Your task to perform on an android device: Clear the shopping cart on bestbuy. Add bose soundsport free to the cart on bestbuy Image 0: 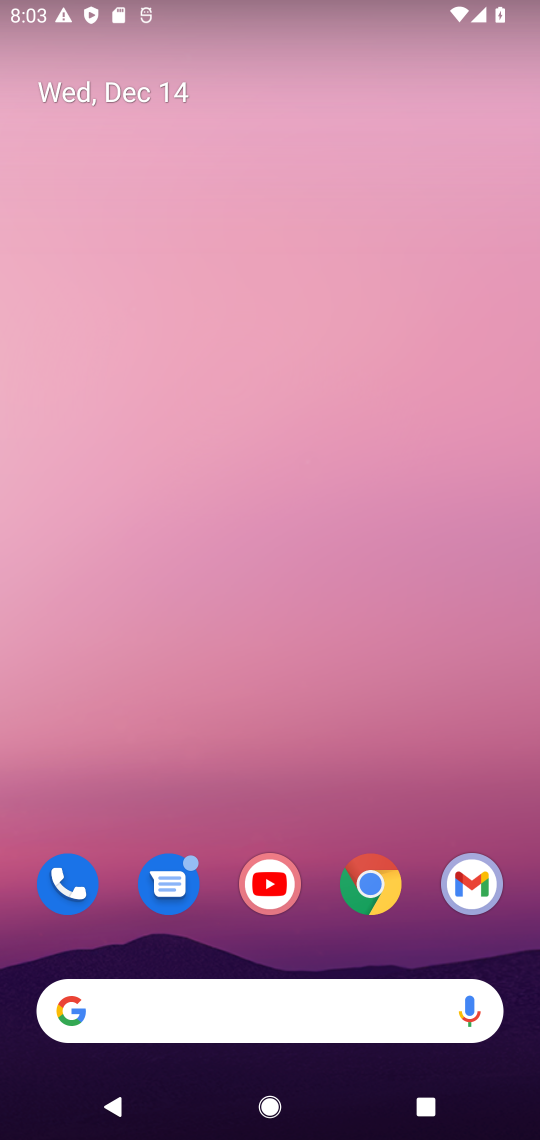
Step 0: click (379, 888)
Your task to perform on an android device: Clear the shopping cart on bestbuy. Add bose soundsport free to the cart on bestbuy Image 1: 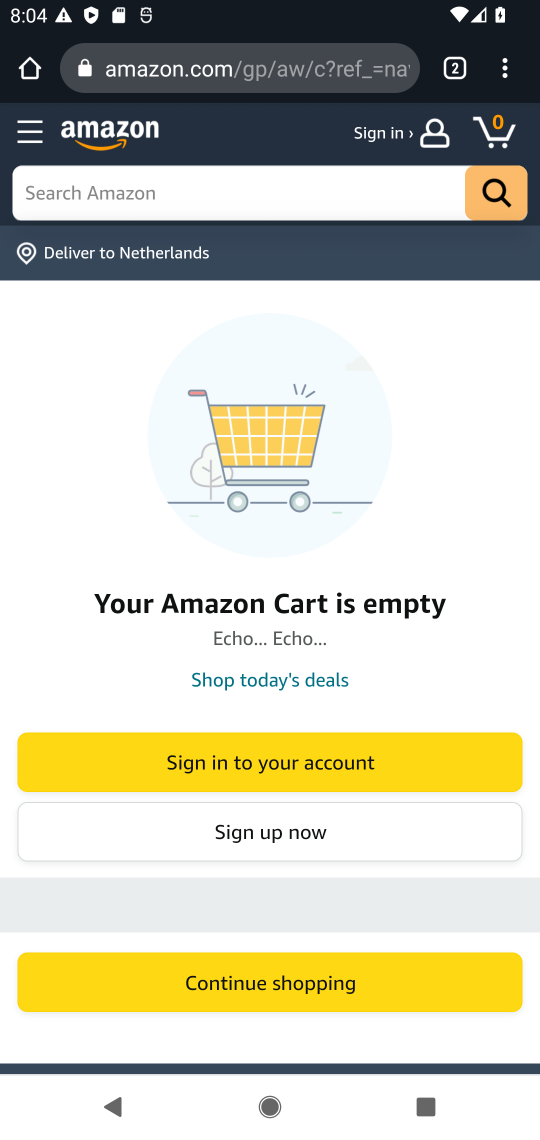
Step 1: click (466, 66)
Your task to perform on an android device: Clear the shopping cart on bestbuy. Add bose soundsport free to the cart on bestbuy Image 2: 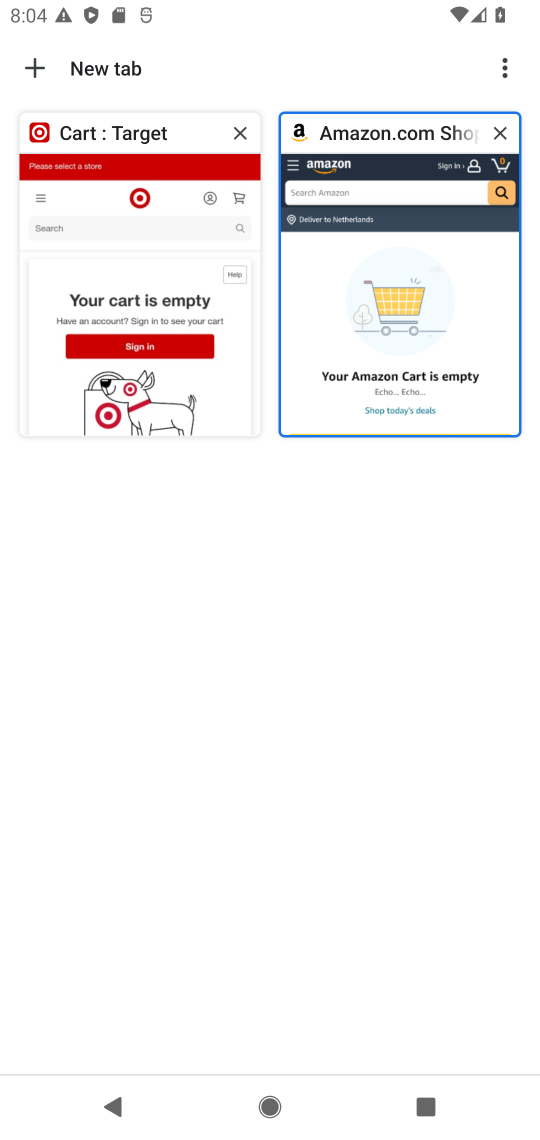
Step 2: click (35, 68)
Your task to perform on an android device: Clear the shopping cart on bestbuy. Add bose soundsport free to the cart on bestbuy Image 3: 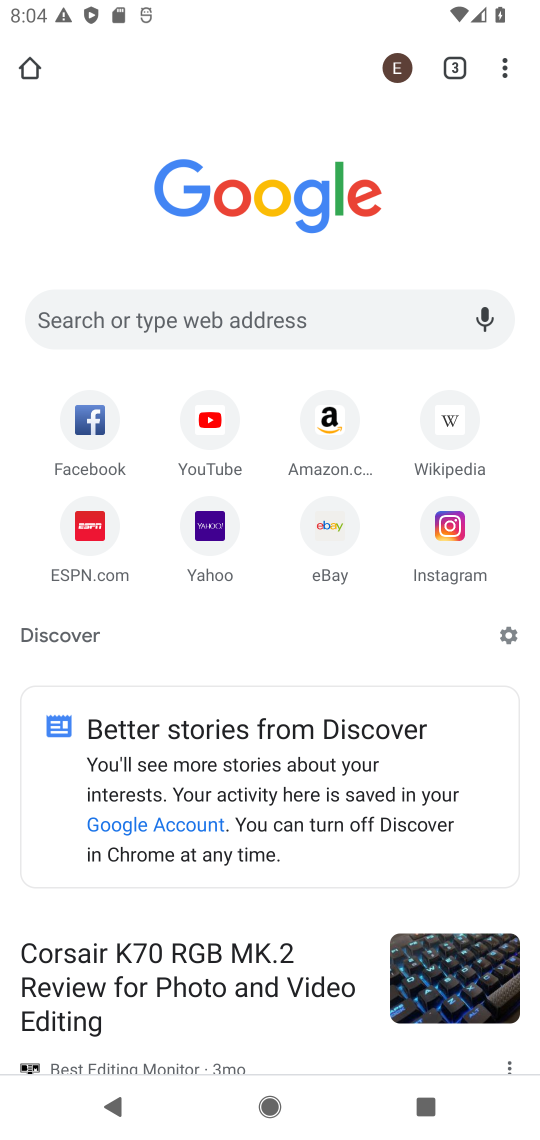
Step 3: click (187, 315)
Your task to perform on an android device: Clear the shopping cart on bestbuy. Add bose soundsport free to the cart on bestbuy Image 4: 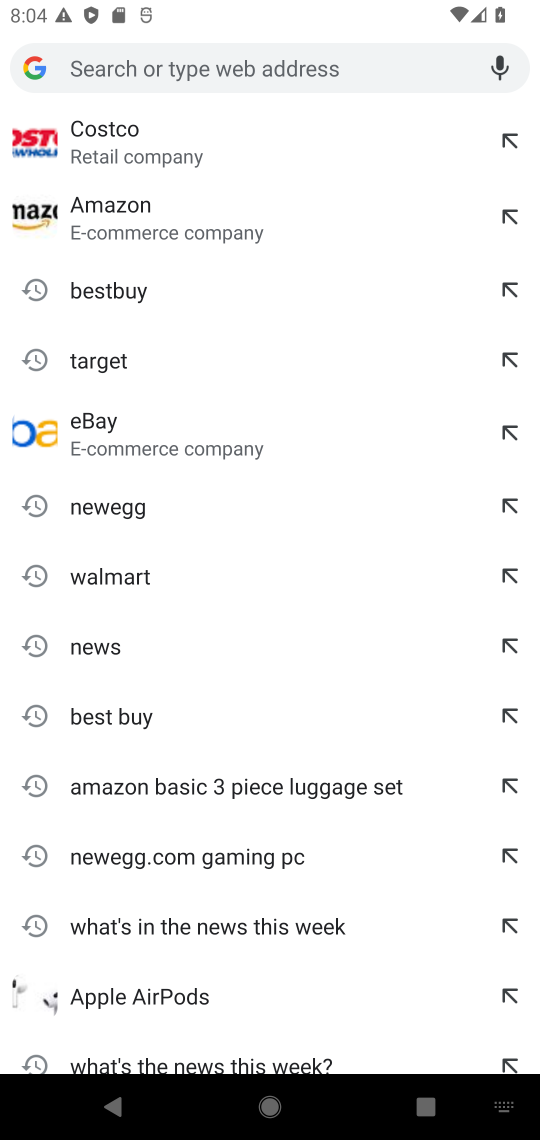
Step 4: click (106, 286)
Your task to perform on an android device: Clear the shopping cart on bestbuy. Add bose soundsport free to the cart on bestbuy Image 5: 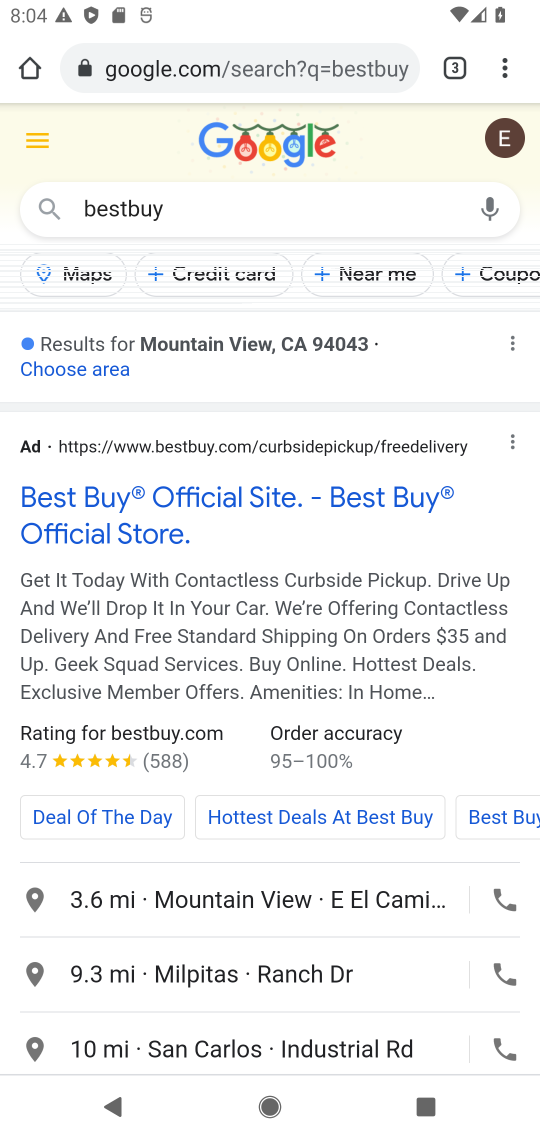
Step 5: click (155, 505)
Your task to perform on an android device: Clear the shopping cart on bestbuy. Add bose soundsport free to the cart on bestbuy Image 6: 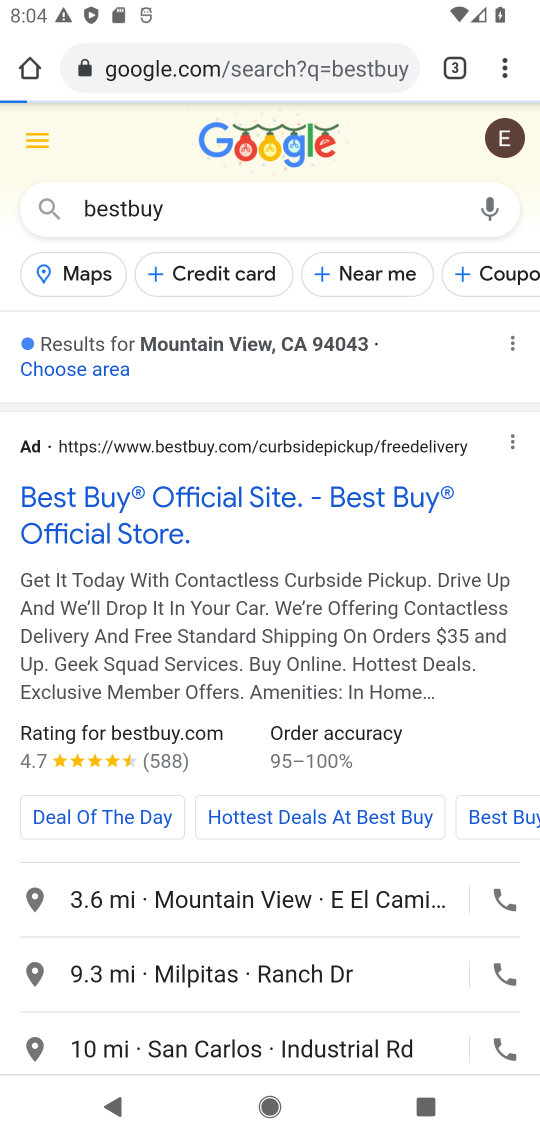
Step 6: click (155, 505)
Your task to perform on an android device: Clear the shopping cart on bestbuy. Add bose soundsport free to the cart on bestbuy Image 7: 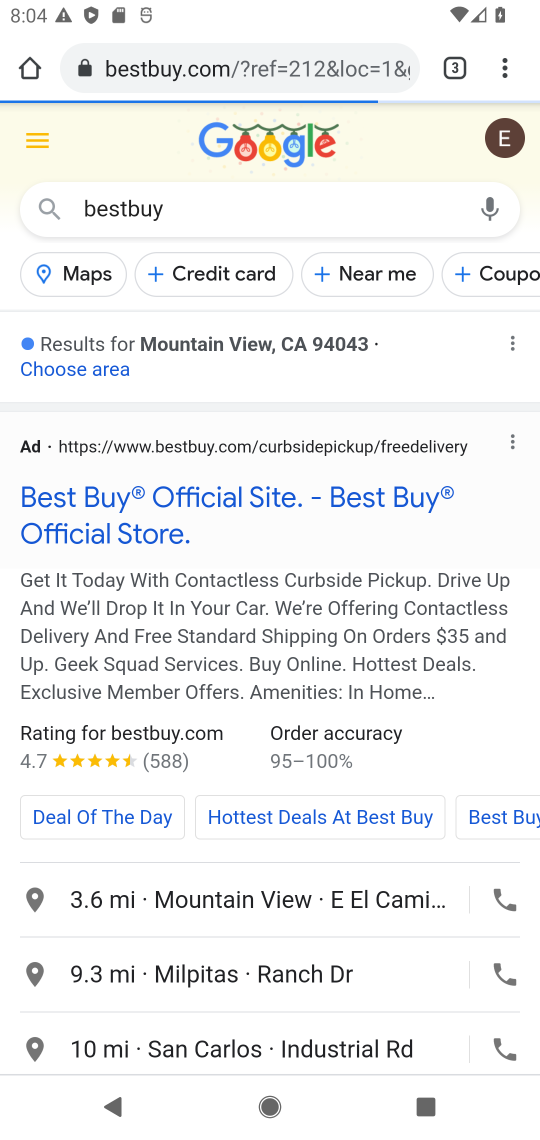
Step 7: click (82, 503)
Your task to perform on an android device: Clear the shopping cart on bestbuy. Add bose soundsport free to the cart on bestbuy Image 8: 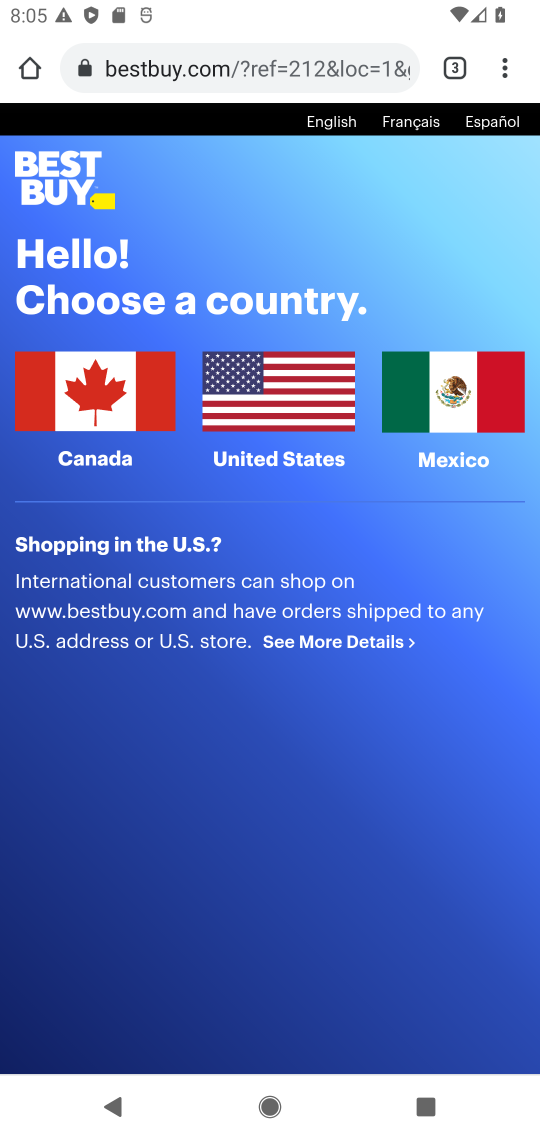
Step 8: click (329, 406)
Your task to perform on an android device: Clear the shopping cart on bestbuy. Add bose soundsport free to the cart on bestbuy Image 9: 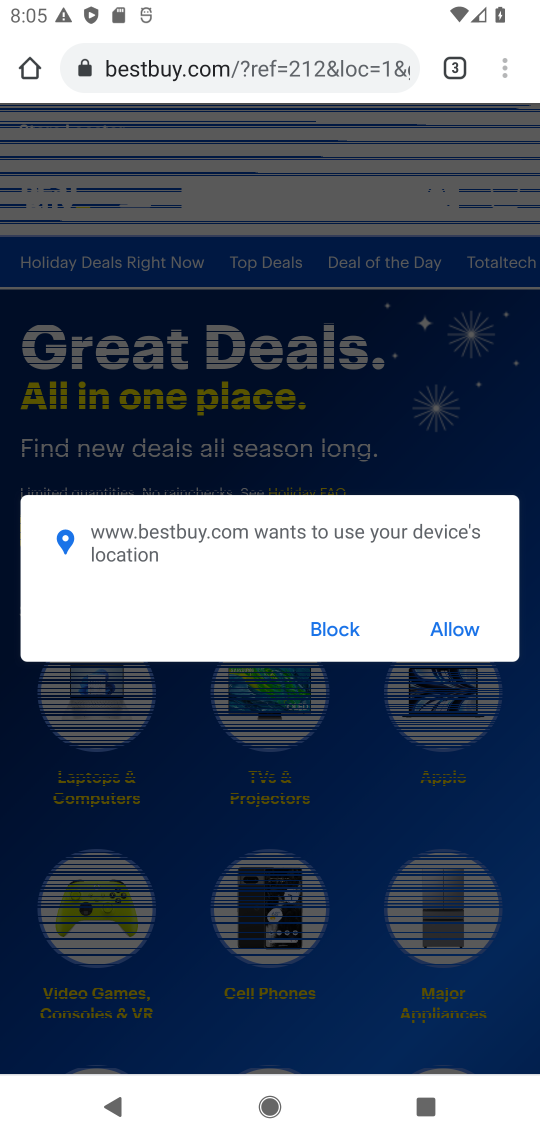
Step 9: click (325, 633)
Your task to perform on an android device: Clear the shopping cart on bestbuy. Add bose soundsport free to the cart on bestbuy Image 10: 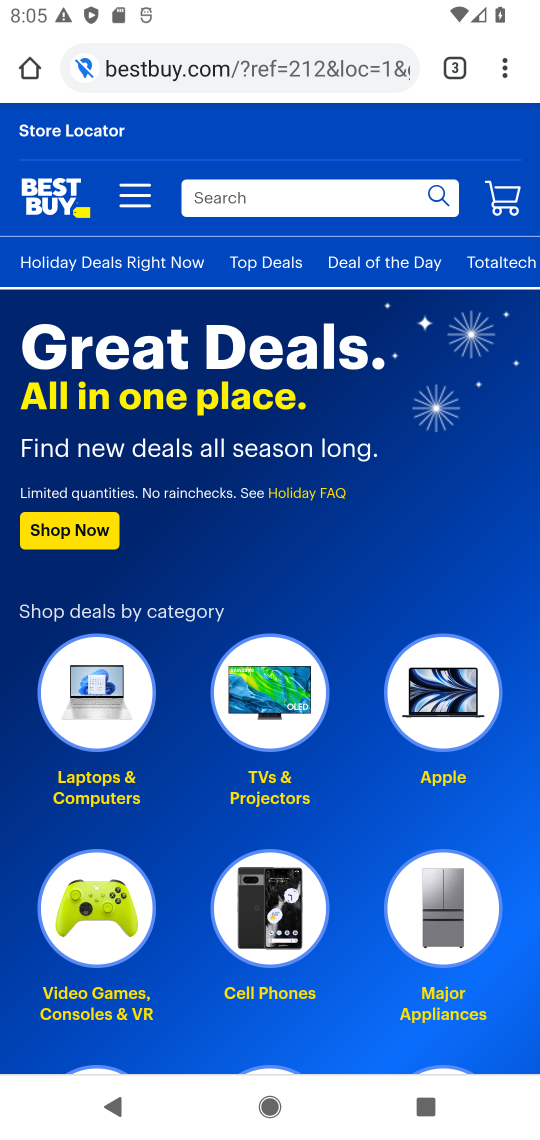
Step 10: click (254, 185)
Your task to perform on an android device: Clear the shopping cart on bestbuy. Add bose soundsport free to the cart on bestbuy Image 11: 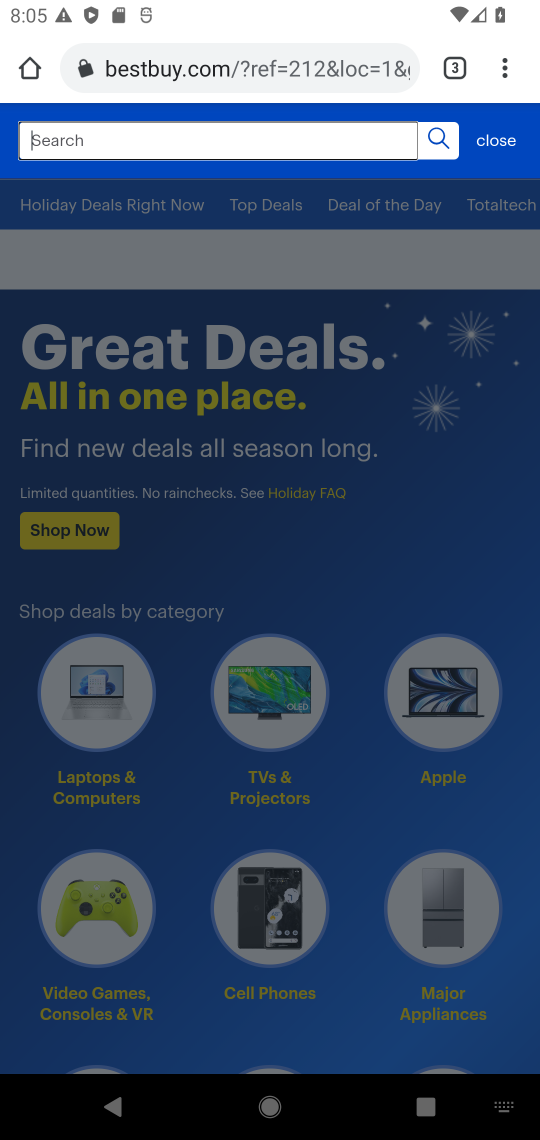
Step 11: type "bose soundsport free"
Your task to perform on an android device: Clear the shopping cart on bestbuy. Add bose soundsport free to the cart on bestbuy Image 12: 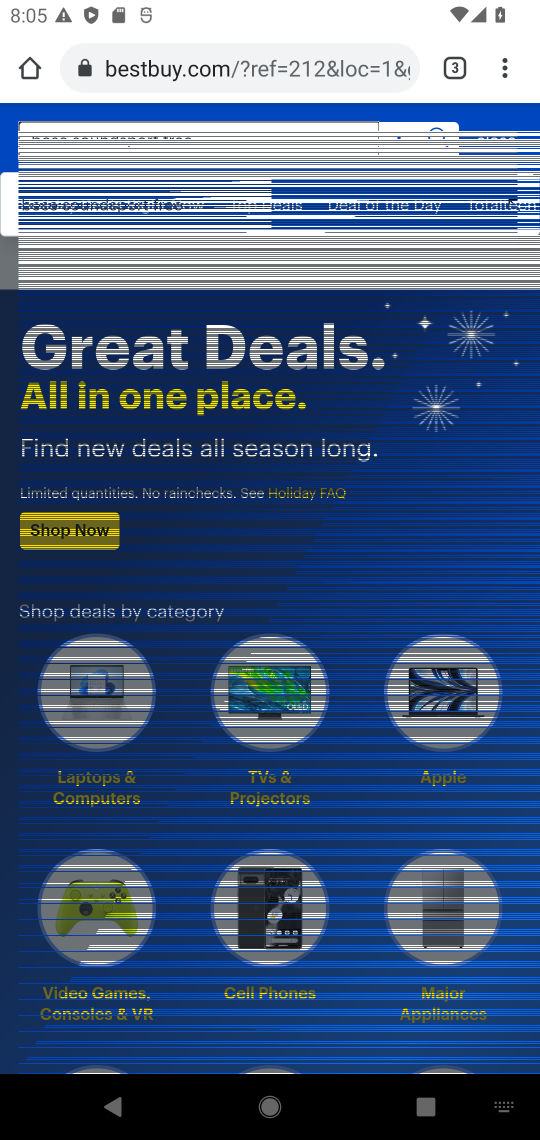
Step 12: click (153, 220)
Your task to perform on an android device: Clear the shopping cart on bestbuy. Add bose soundsport free to the cart on bestbuy Image 13: 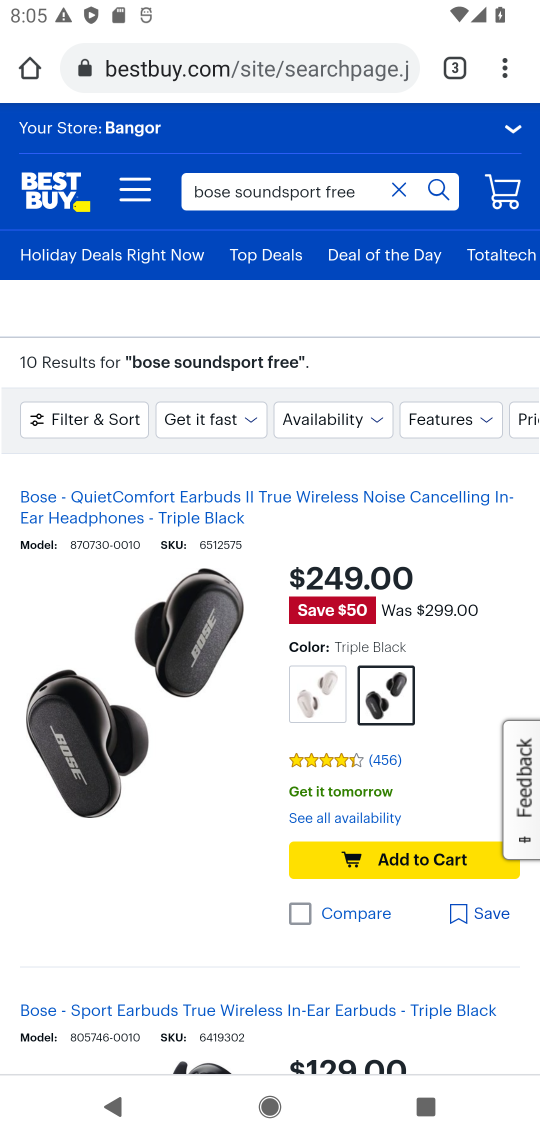
Step 13: click (409, 869)
Your task to perform on an android device: Clear the shopping cart on bestbuy. Add bose soundsport free to the cart on bestbuy Image 14: 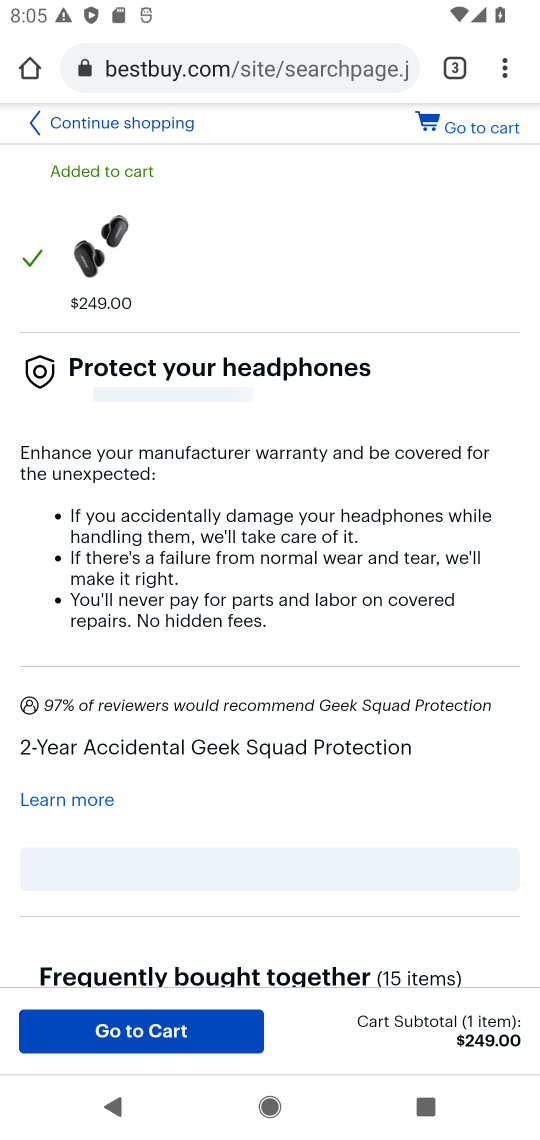
Step 14: task complete